Your task to perform on an android device: turn vacation reply on in the gmail app Image 0: 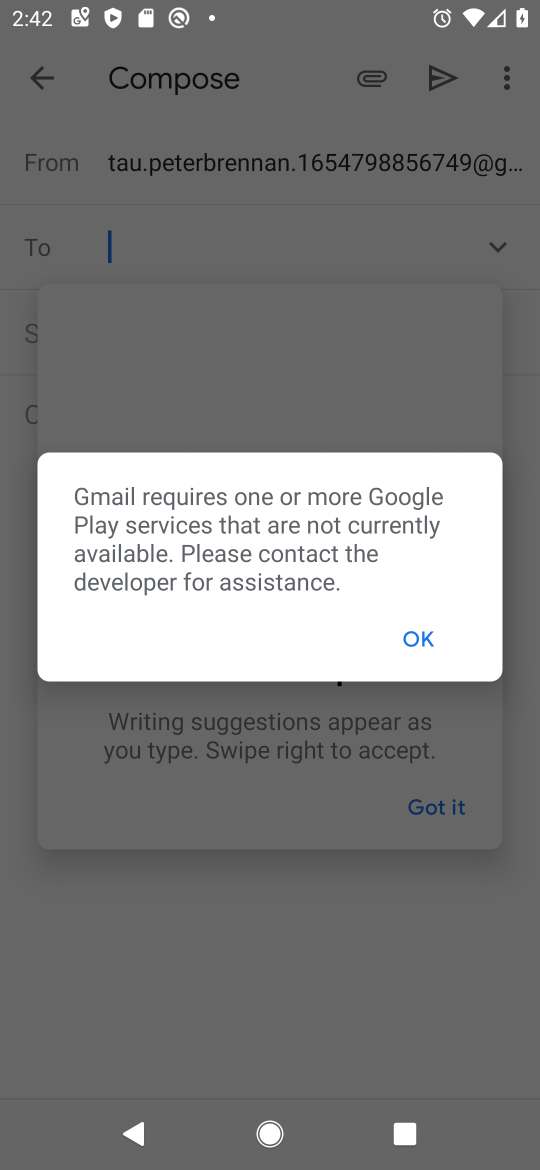
Step 0: press home button
Your task to perform on an android device: turn vacation reply on in the gmail app Image 1: 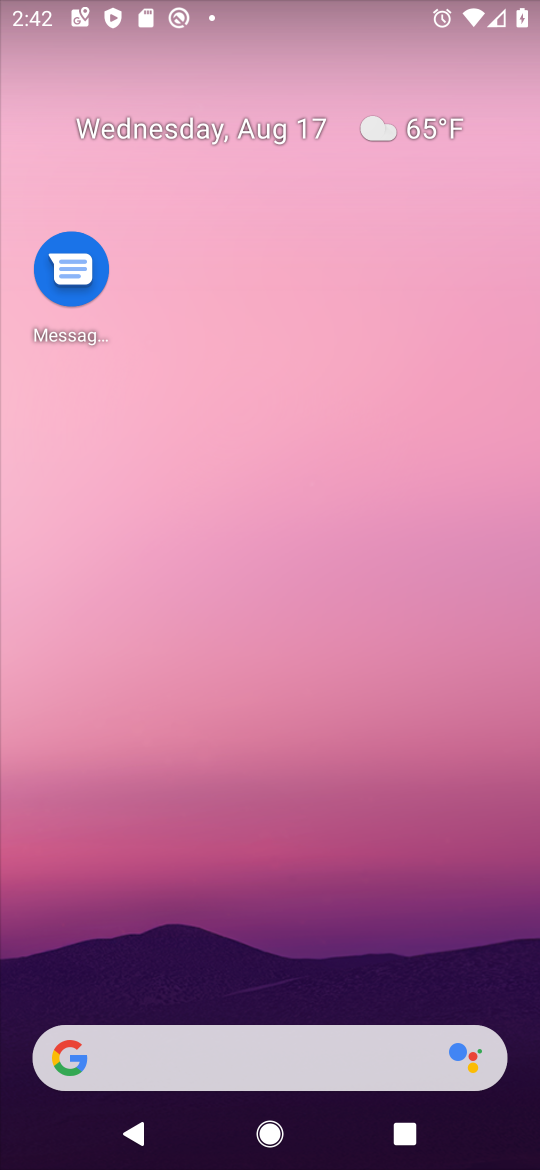
Step 1: drag from (297, 964) to (234, 63)
Your task to perform on an android device: turn vacation reply on in the gmail app Image 2: 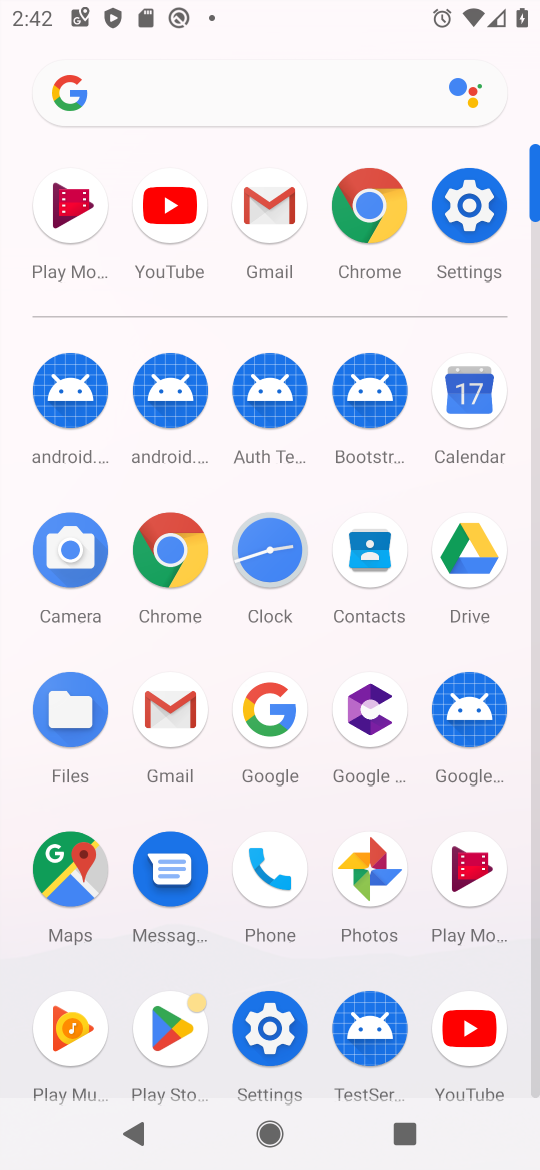
Step 2: click (254, 233)
Your task to perform on an android device: turn vacation reply on in the gmail app Image 3: 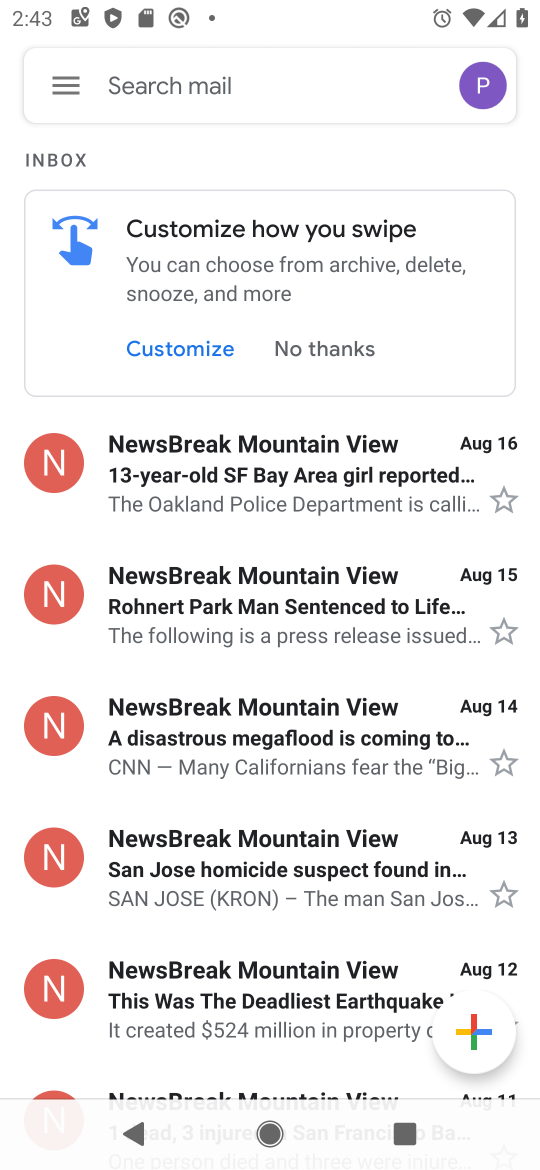
Step 3: click (55, 110)
Your task to perform on an android device: turn vacation reply on in the gmail app Image 4: 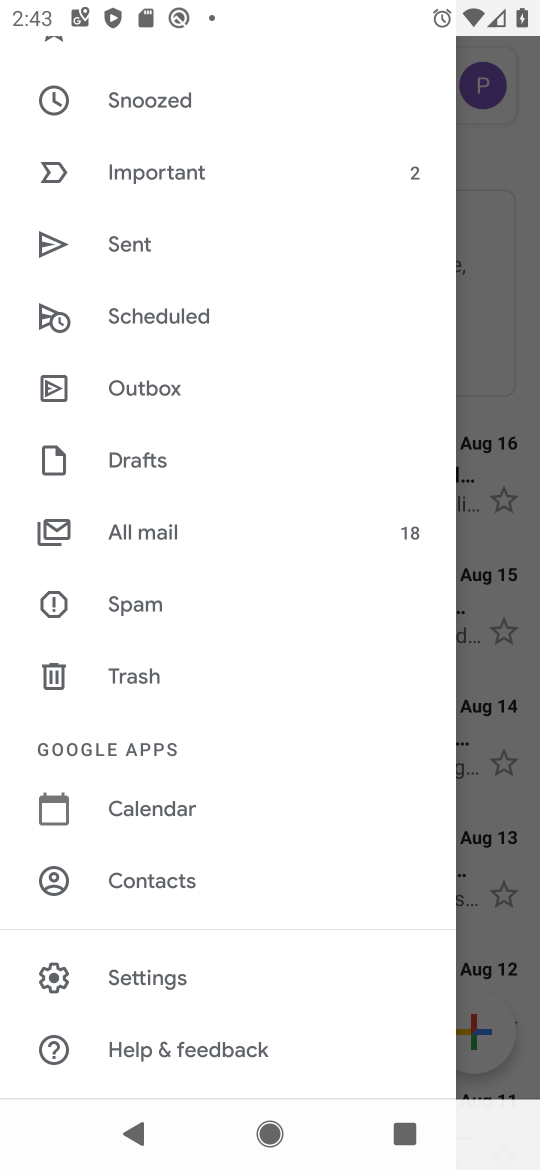
Step 4: click (131, 970)
Your task to perform on an android device: turn vacation reply on in the gmail app Image 5: 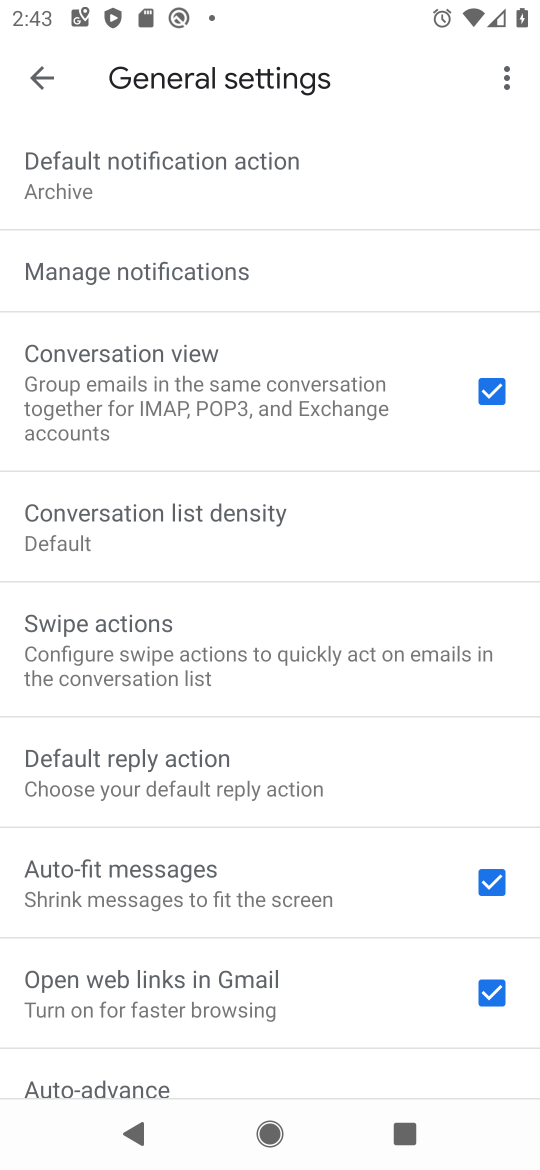
Step 5: drag from (353, 956) to (333, 330)
Your task to perform on an android device: turn vacation reply on in the gmail app Image 6: 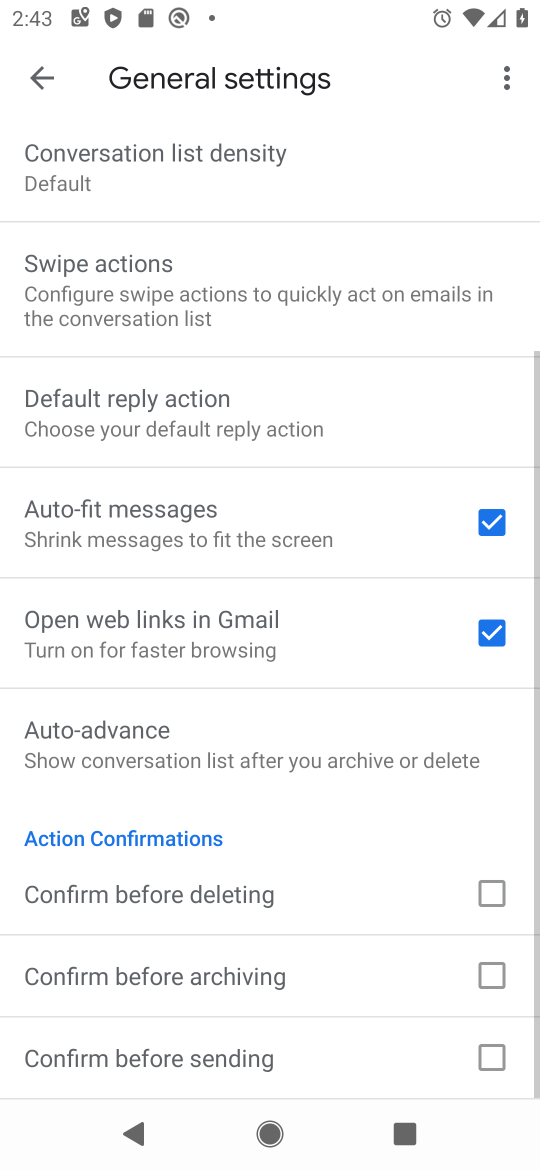
Step 6: click (28, 68)
Your task to perform on an android device: turn vacation reply on in the gmail app Image 7: 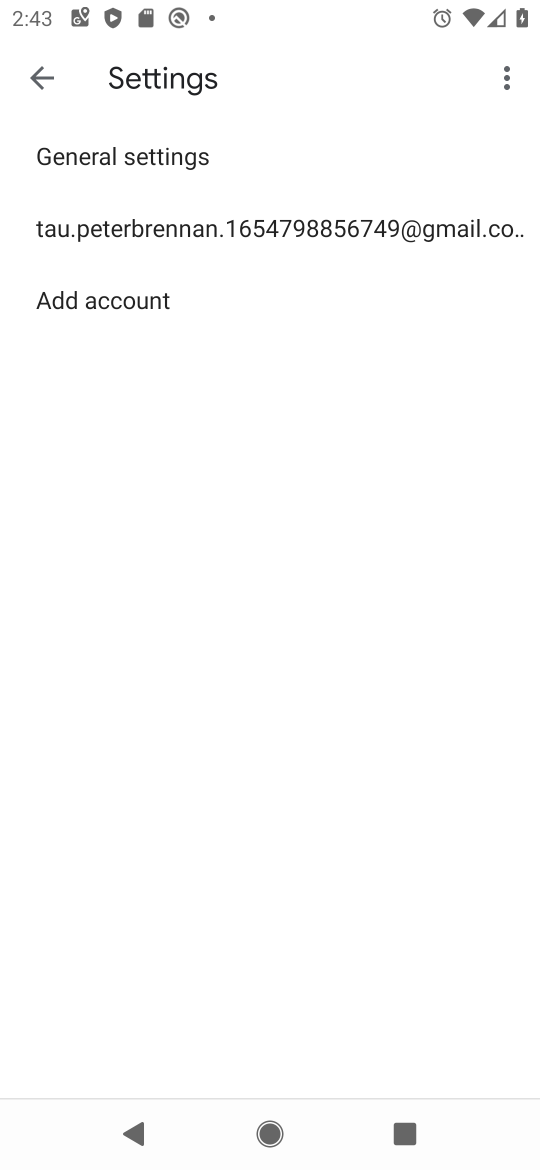
Step 7: click (172, 215)
Your task to perform on an android device: turn vacation reply on in the gmail app Image 8: 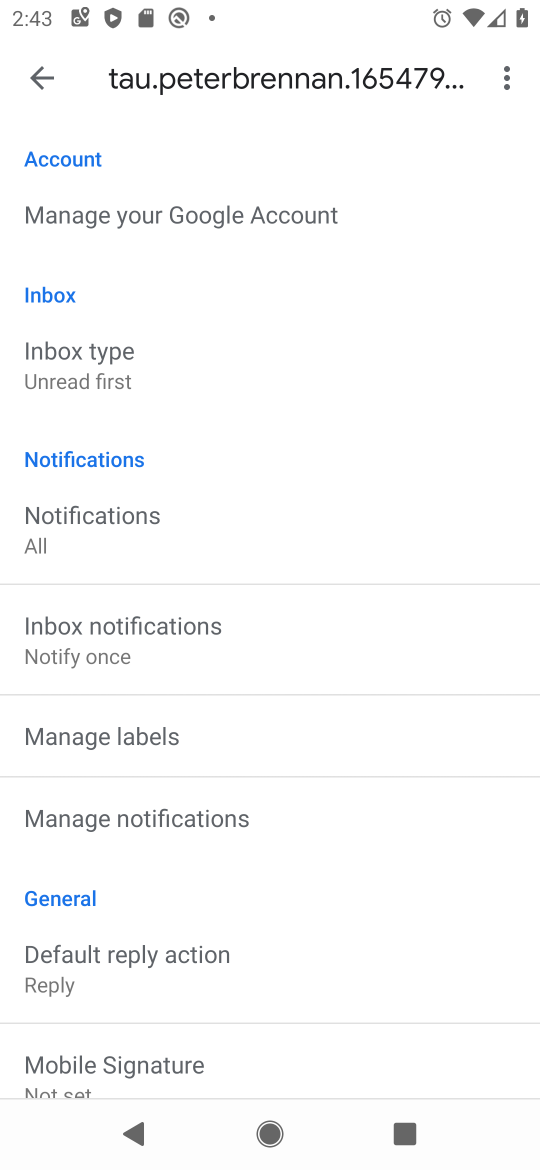
Step 8: drag from (245, 812) to (160, 167)
Your task to perform on an android device: turn vacation reply on in the gmail app Image 9: 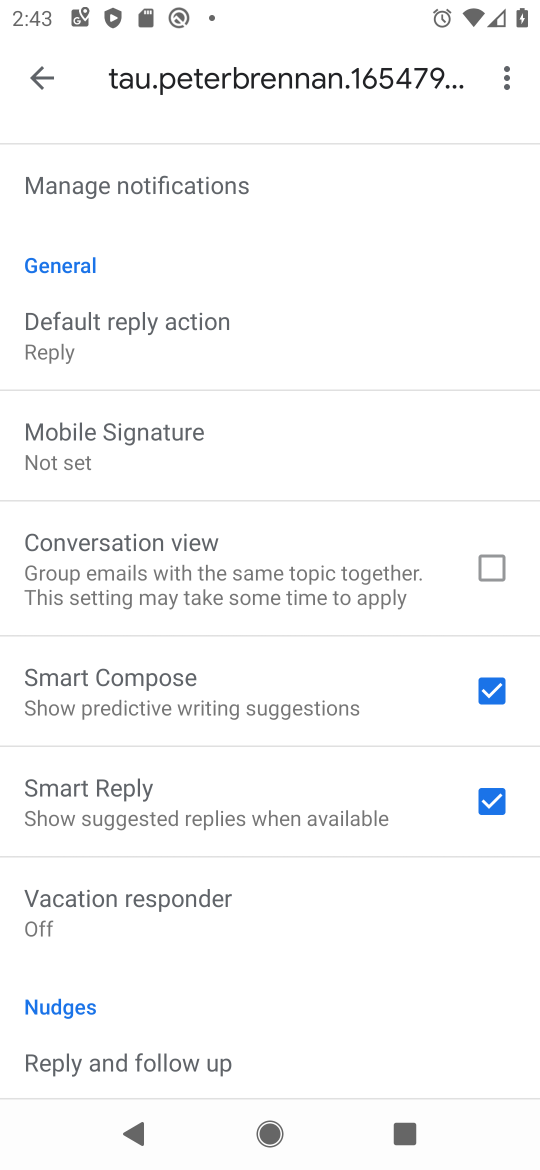
Step 9: click (253, 916)
Your task to perform on an android device: turn vacation reply on in the gmail app Image 10: 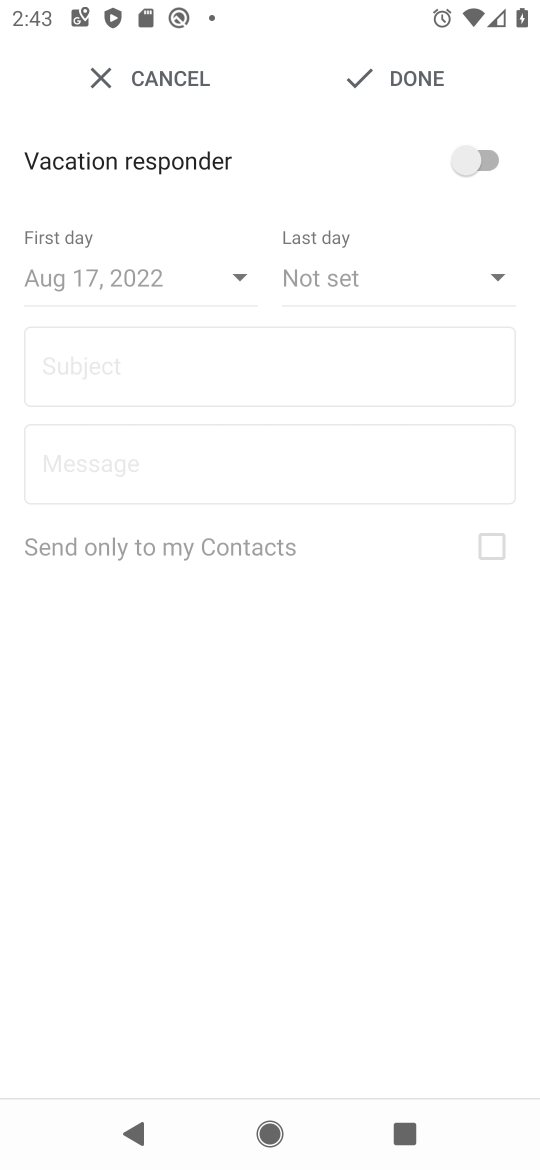
Step 10: click (452, 159)
Your task to perform on an android device: turn vacation reply on in the gmail app Image 11: 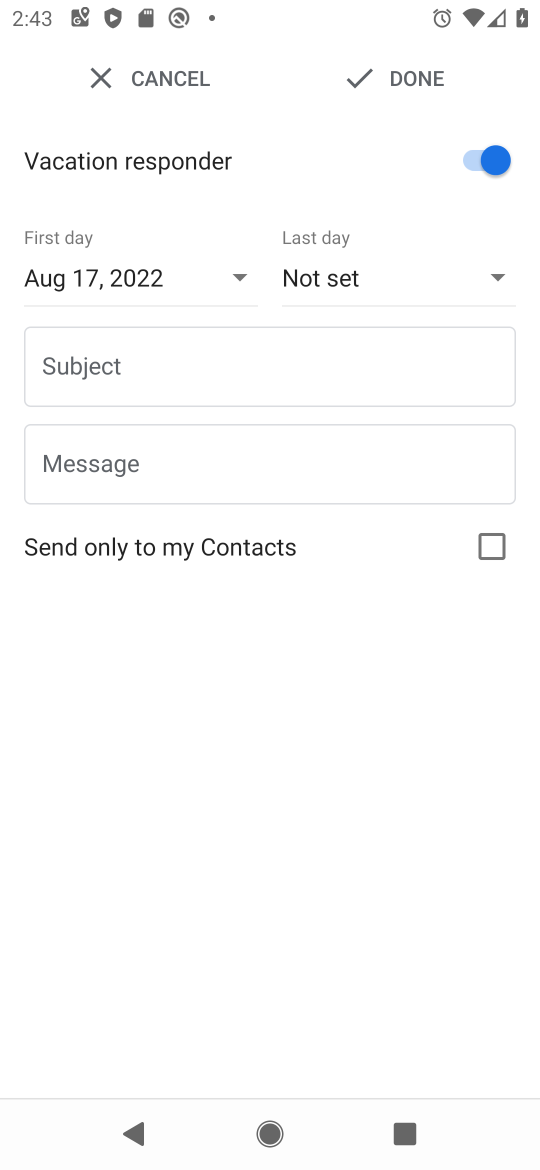
Step 11: click (428, 75)
Your task to perform on an android device: turn vacation reply on in the gmail app Image 12: 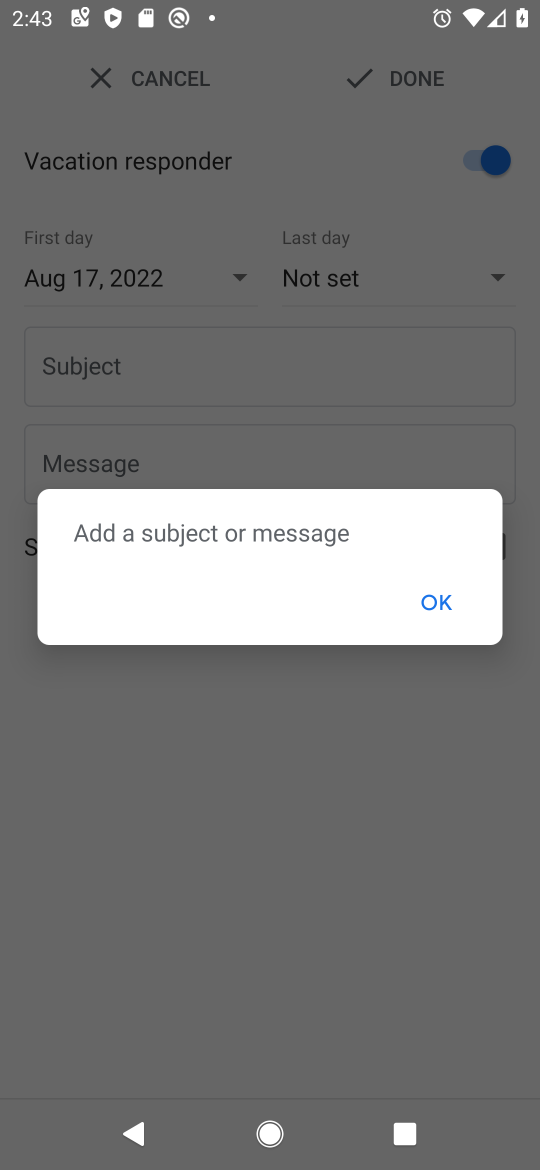
Step 12: task complete